Your task to perform on an android device: change notification settings in the gmail app Image 0: 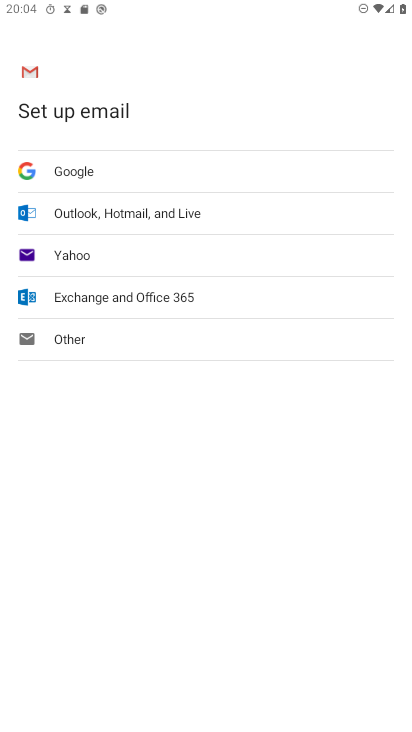
Step 0: press home button
Your task to perform on an android device: change notification settings in the gmail app Image 1: 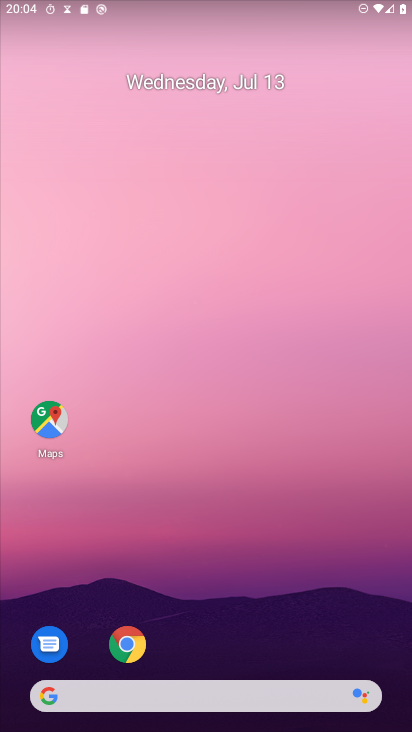
Step 1: drag from (270, 631) to (270, 52)
Your task to perform on an android device: change notification settings in the gmail app Image 2: 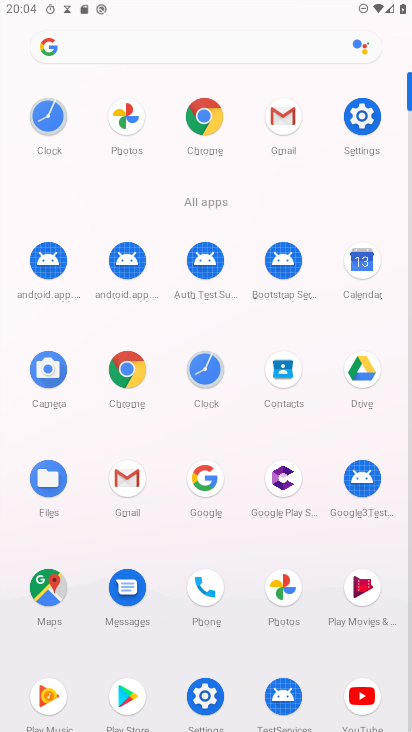
Step 2: click (282, 115)
Your task to perform on an android device: change notification settings in the gmail app Image 3: 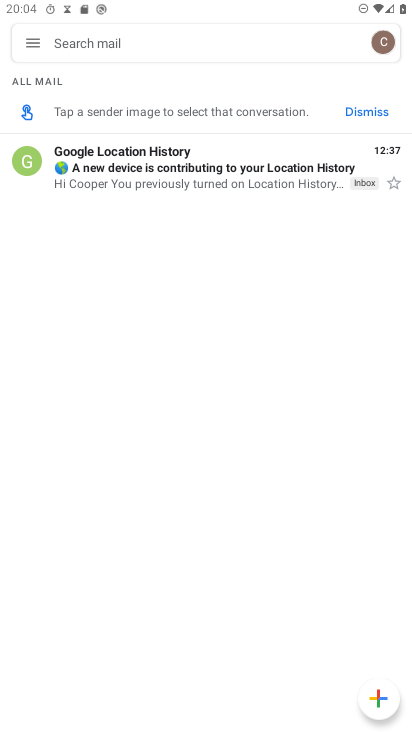
Step 3: click (28, 51)
Your task to perform on an android device: change notification settings in the gmail app Image 4: 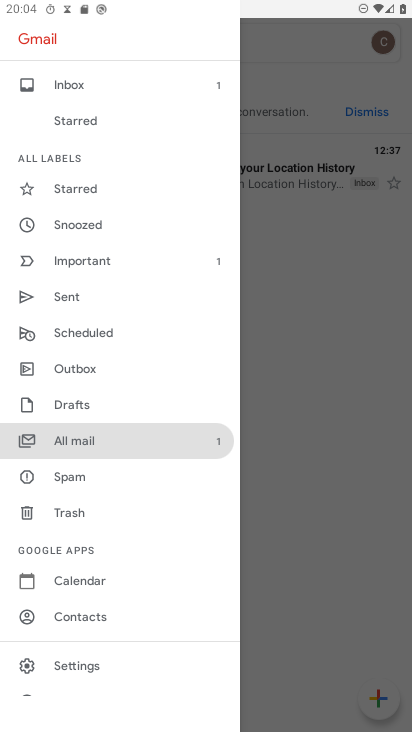
Step 4: click (158, 656)
Your task to perform on an android device: change notification settings in the gmail app Image 5: 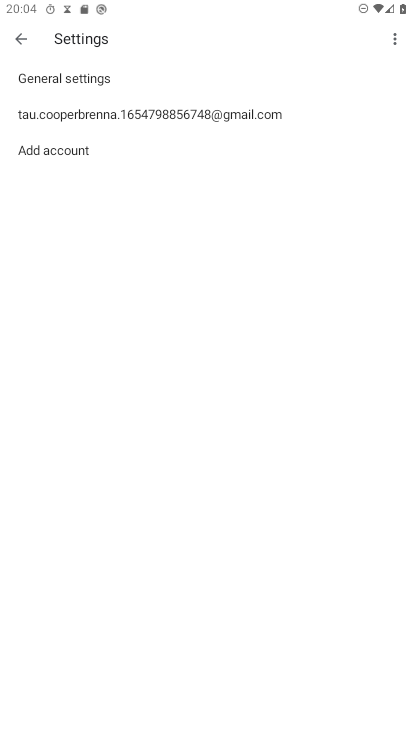
Step 5: click (228, 120)
Your task to perform on an android device: change notification settings in the gmail app Image 6: 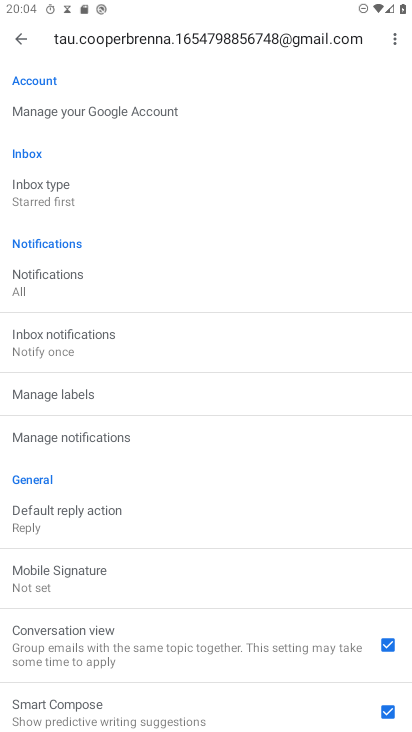
Step 6: click (106, 437)
Your task to perform on an android device: change notification settings in the gmail app Image 7: 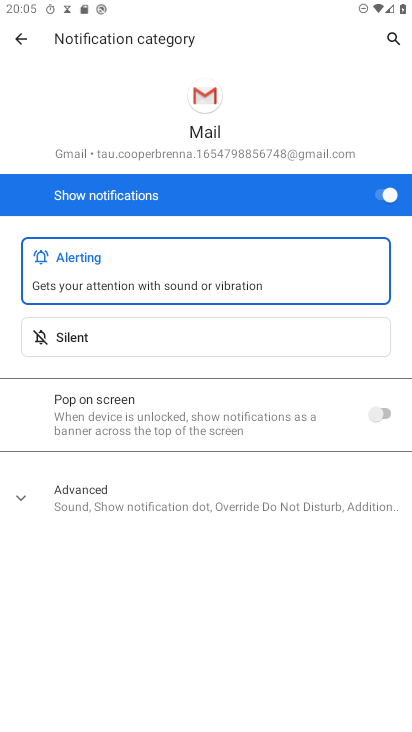
Step 7: click (391, 181)
Your task to perform on an android device: change notification settings in the gmail app Image 8: 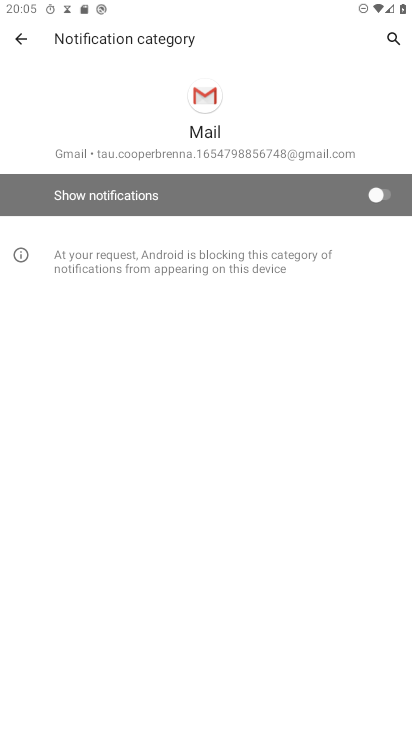
Step 8: task complete